Your task to perform on an android device: read, delete, or share a saved page in the chrome app Image 0: 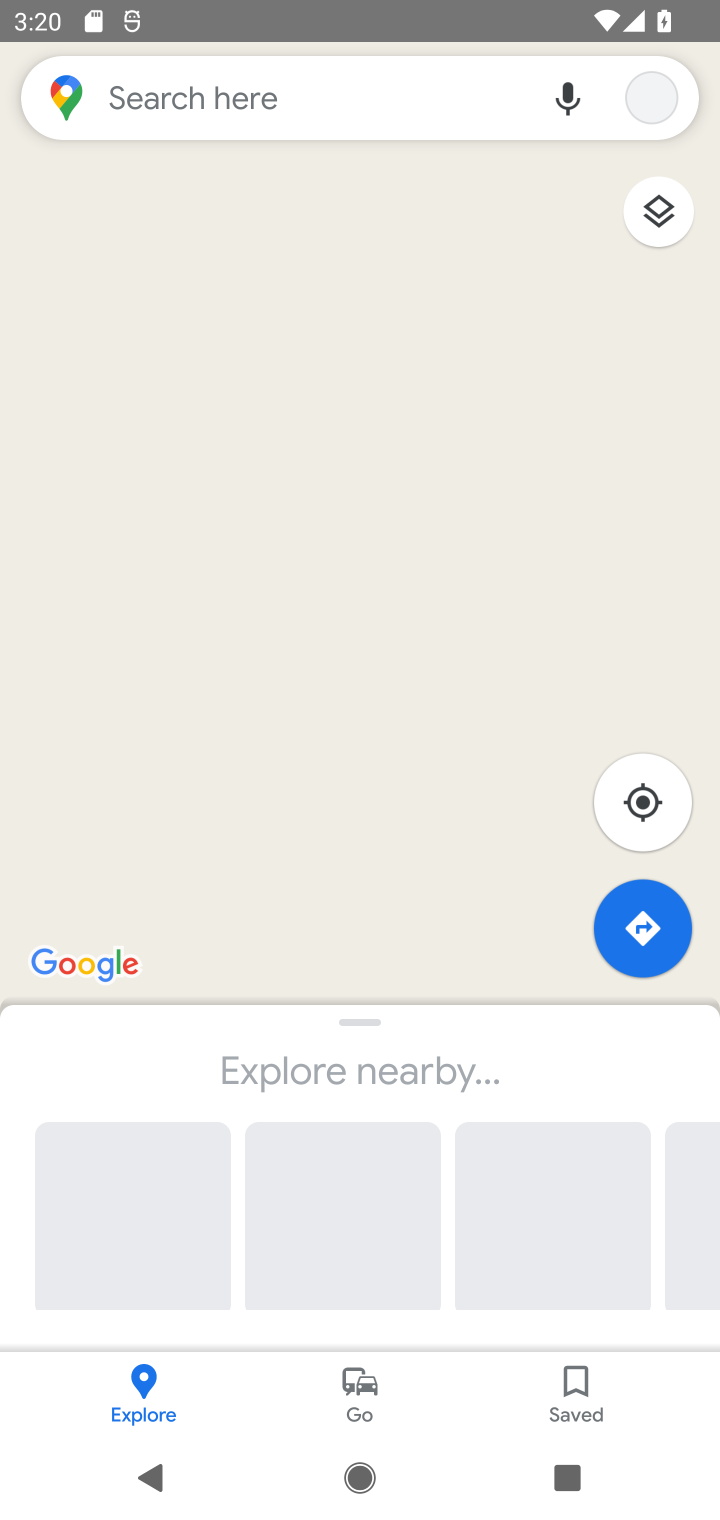
Step 0: press home button
Your task to perform on an android device: read, delete, or share a saved page in the chrome app Image 1: 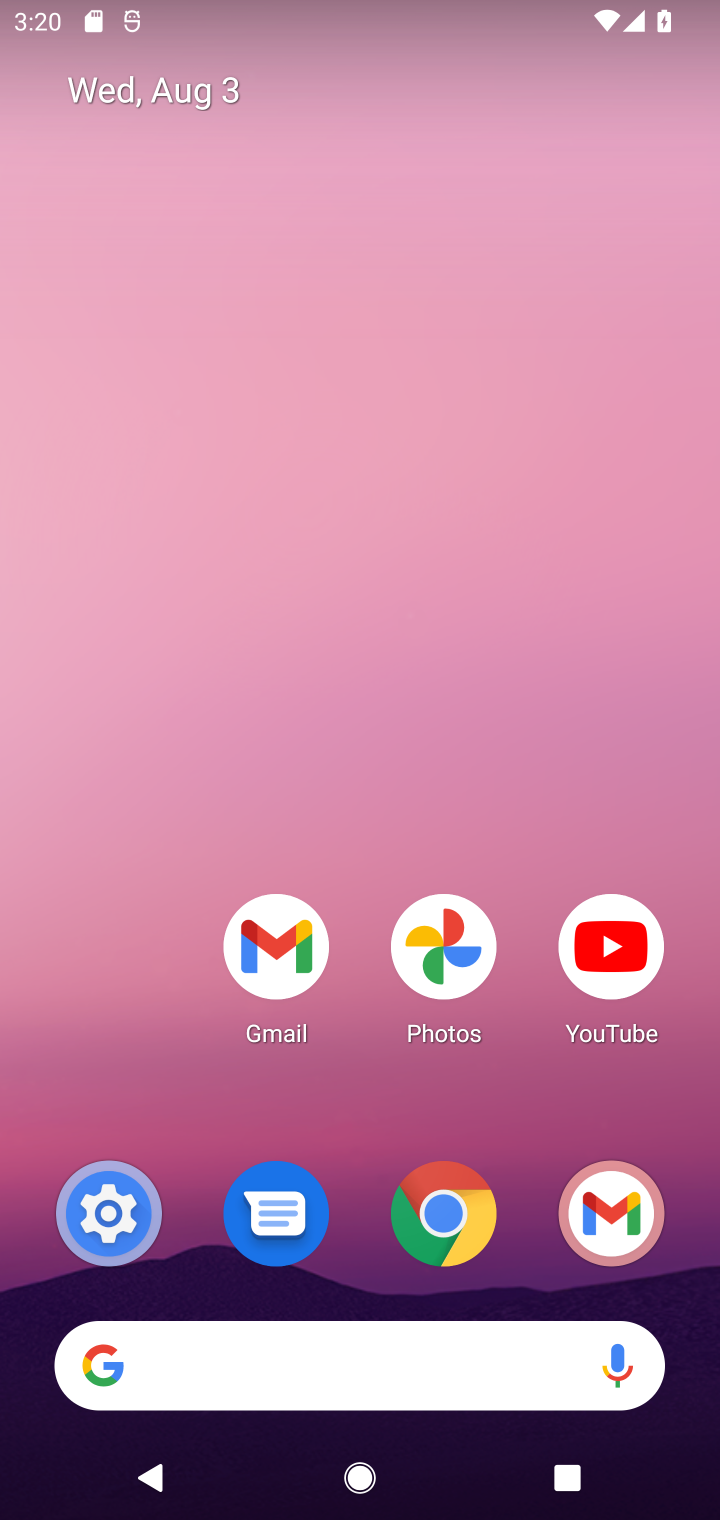
Step 1: drag from (346, 1084) to (369, 369)
Your task to perform on an android device: read, delete, or share a saved page in the chrome app Image 2: 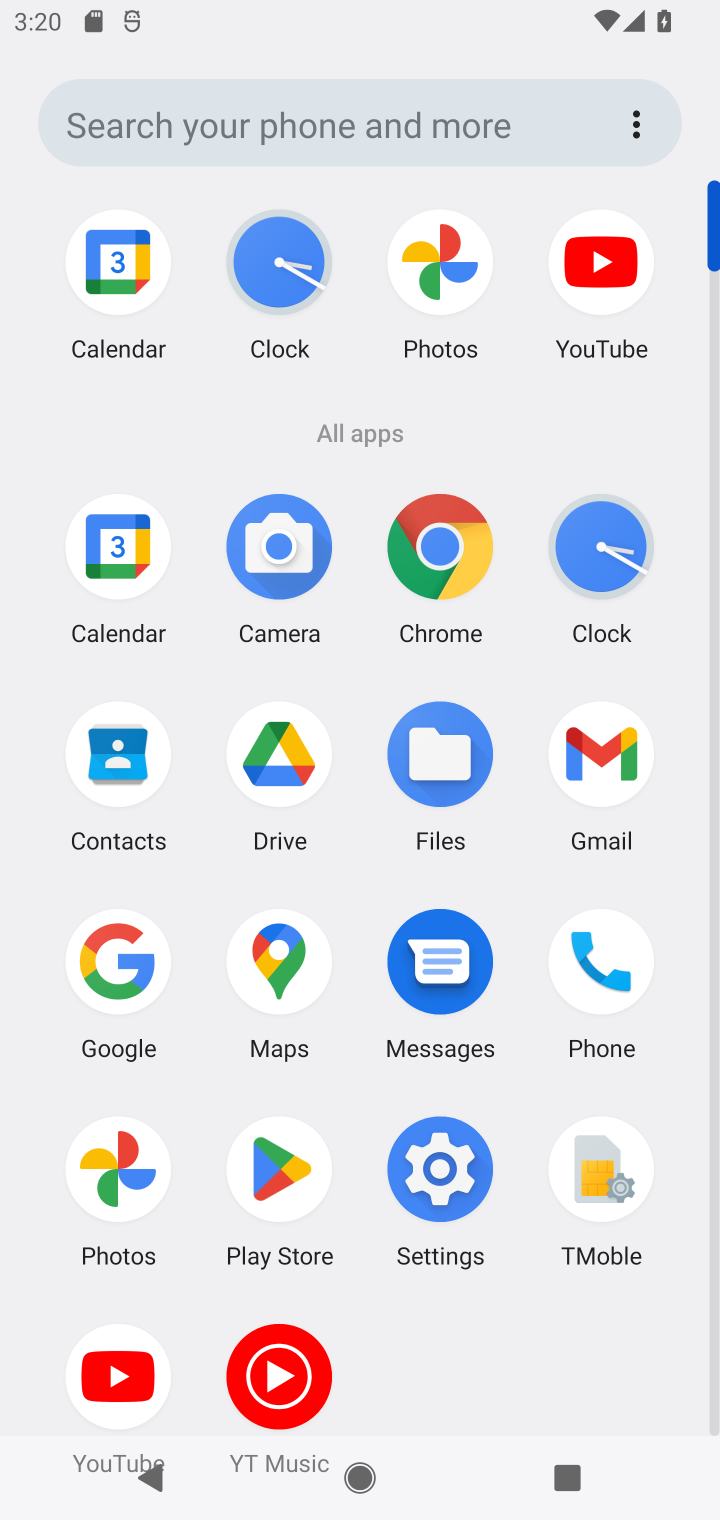
Step 2: click (439, 529)
Your task to perform on an android device: read, delete, or share a saved page in the chrome app Image 3: 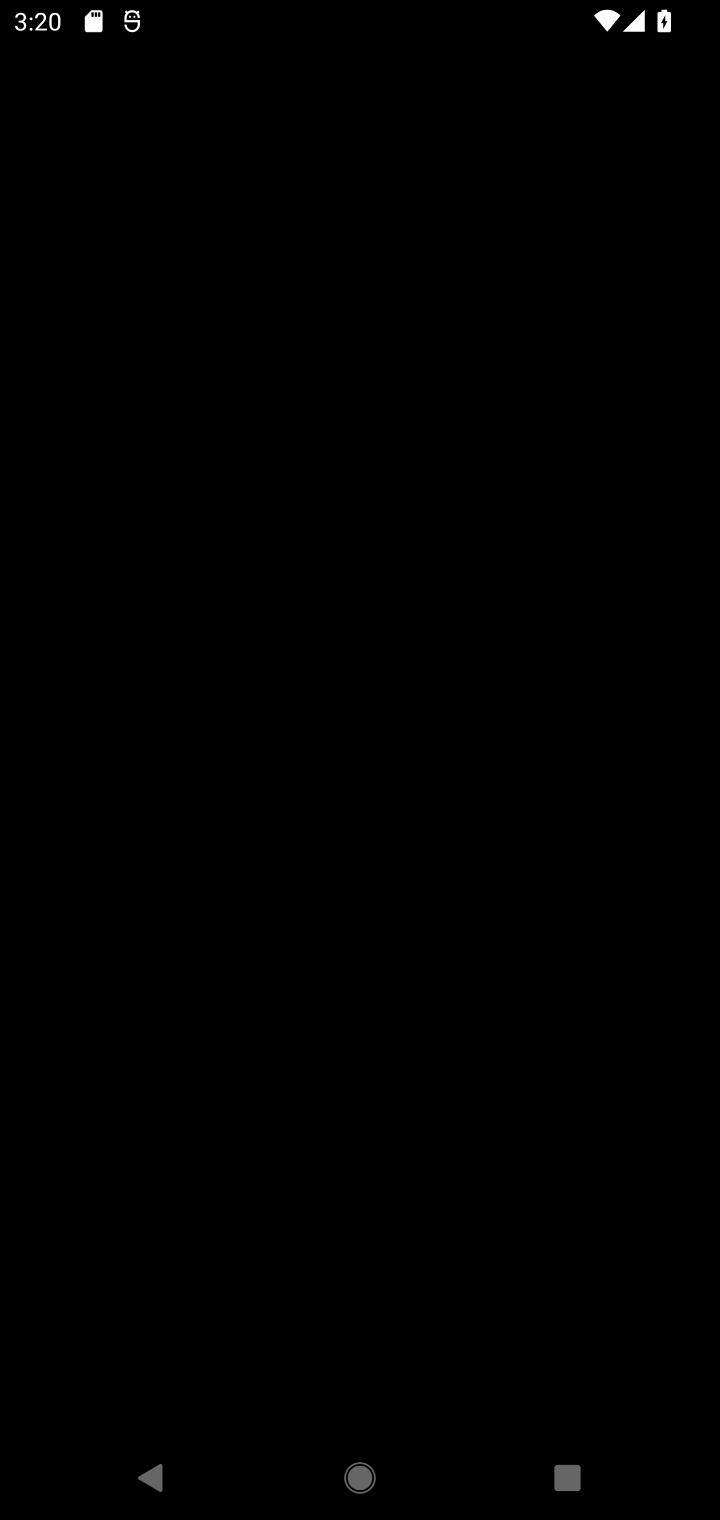
Step 3: task complete